Your task to perform on an android device: find snoozed emails in the gmail app Image 0: 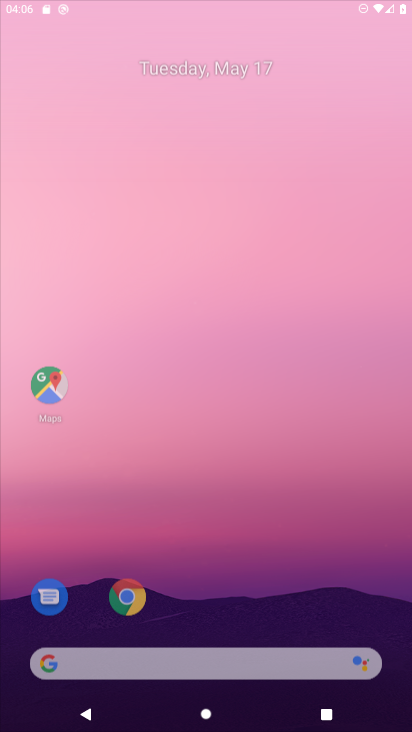
Step 0: drag from (232, 571) to (263, 257)
Your task to perform on an android device: find snoozed emails in the gmail app Image 1: 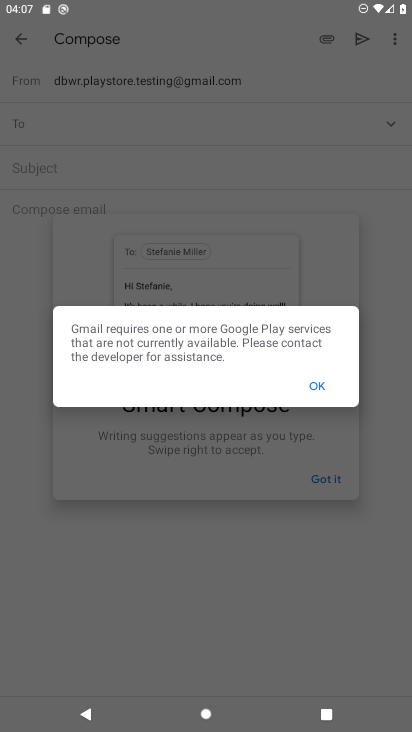
Step 1: press home button
Your task to perform on an android device: find snoozed emails in the gmail app Image 2: 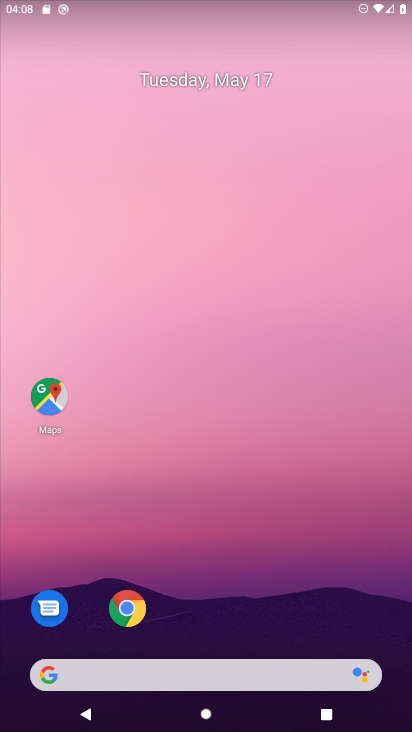
Step 2: drag from (168, 615) to (204, 90)
Your task to perform on an android device: find snoozed emails in the gmail app Image 3: 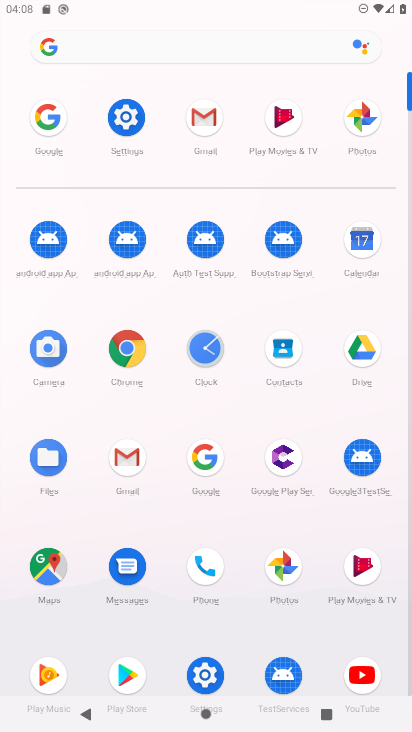
Step 3: click (203, 116)
Your task to perform on an android device: find snoozed emails in the gmail app Image 4: 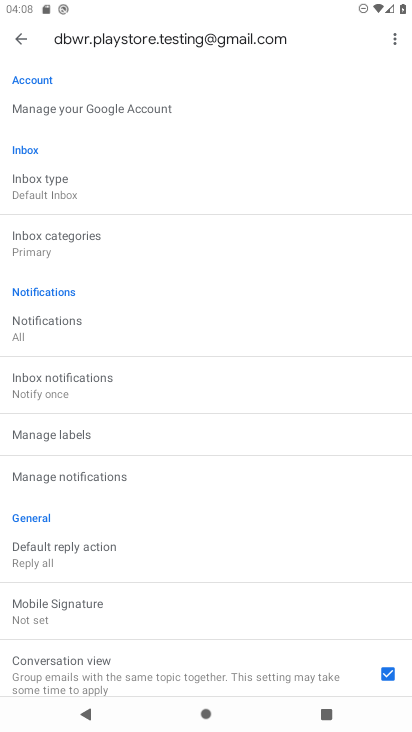
Step 4: click (22, 41)
Your task to perform on an android device: find snoozed emails in the gmail app Image 5: 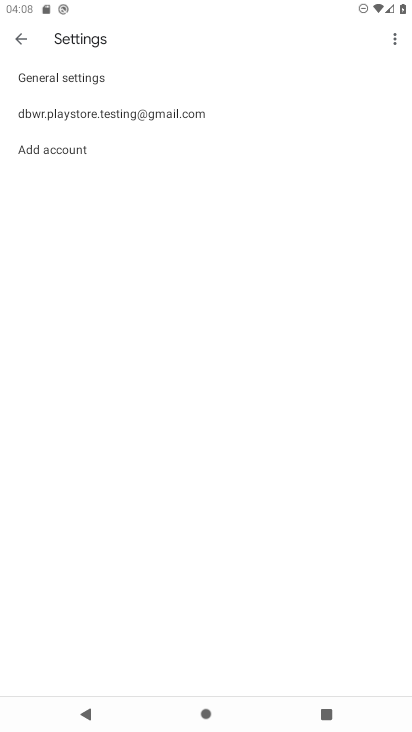
Step 5: click (20, 46)
Your task to perform on an android device: find snoozed emails in the gmail app Image 6: 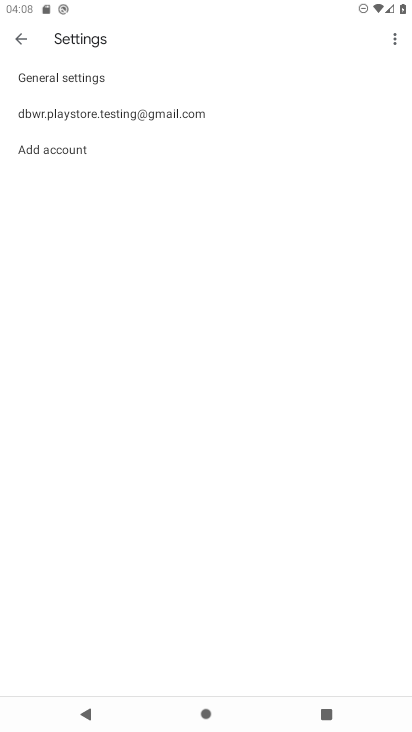
Step 6: click (23, 42)
Your task to perform on an android device: find snoozed emails in the gmail app Image 7: 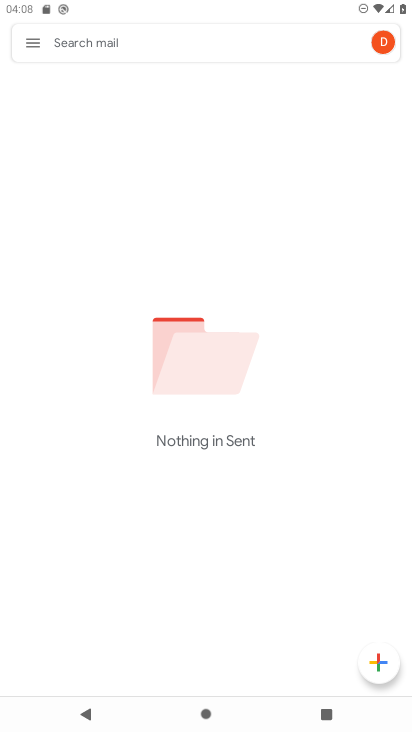
Step 7: click (32, 39)
Your task to perform on an android device: find snoozed emails in the gmail app Image 8: 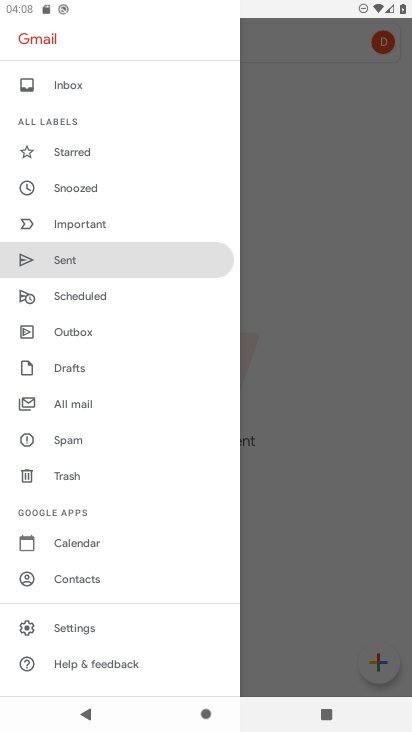
Step 8: click (75, 188)
Your task to perform on an android device: find snoozed emails in the gmail app Image 9: 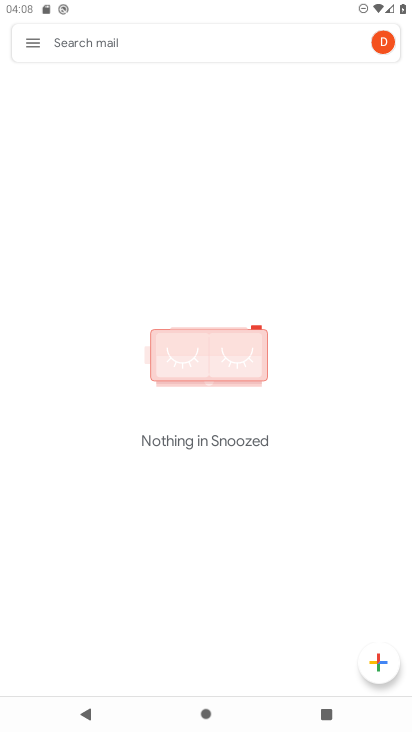
Step 9: task complete